Your task to perform on an android device: Open the calendar and show me this week's events? Image 0: 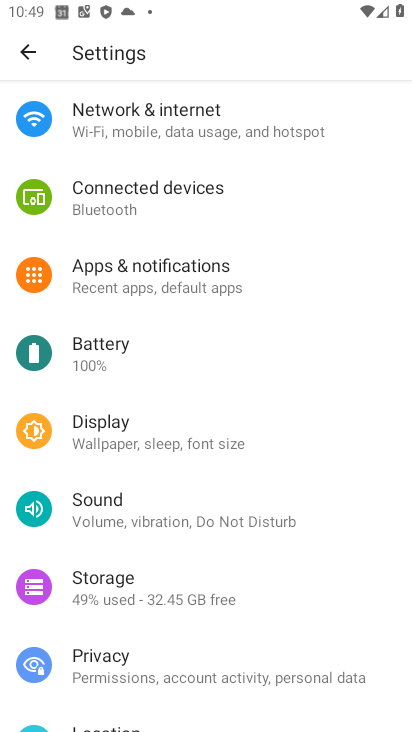
Step 0: press home button
Your task to perform on an android device: Open the calendar and show me this week's events? Image 1: 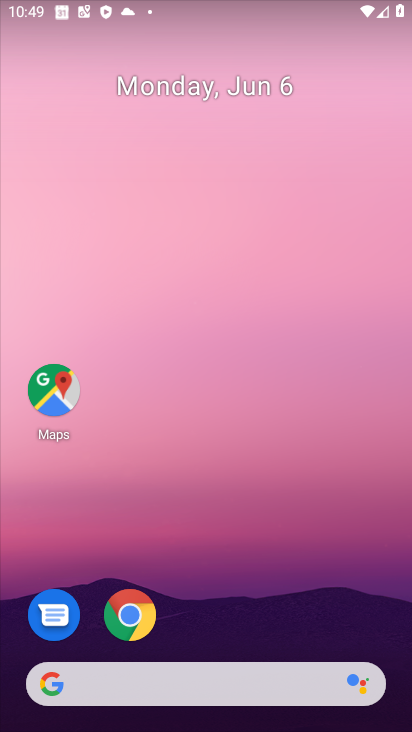
Step 1: drag from (245, 637) to (275, 55)
Your task to perform on an android device: Open the calendar and show me this week's events? Image 2: 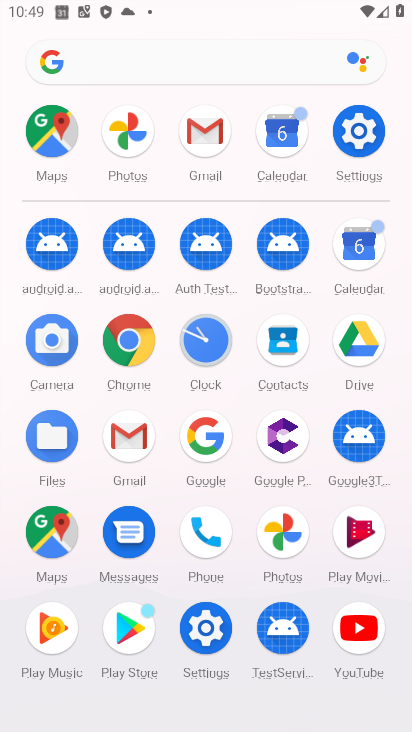
Step 2: click (282, 133)
Your task to perform on an android device: Open the calendar and show me this week's events? Image 3: 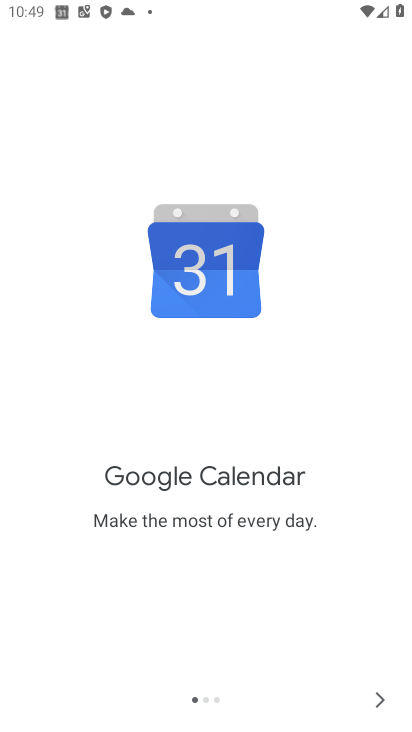
Step 3: click (373, 702)
Your task to perform on an android device: Open the calendar and show me this week's events? Image 4: 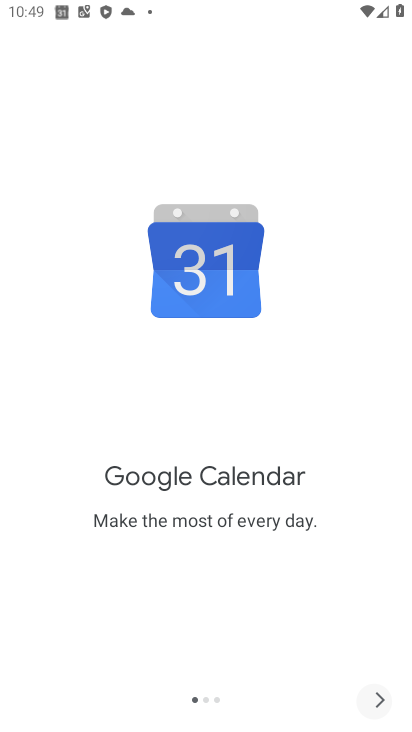
Step 4: click (373, 702)
Your task to perform on an android device: Open the calendar and show me this week's events? Image 5: 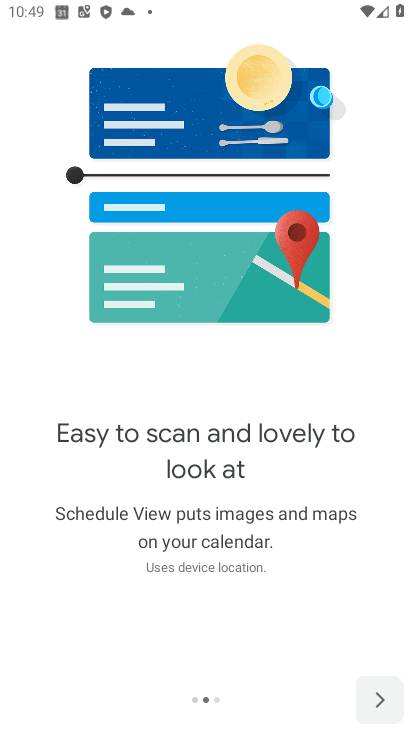
Step 5: click (373, 702)
Your task to perform on an android device: Open the calendar and show me this week's events? Image 6: 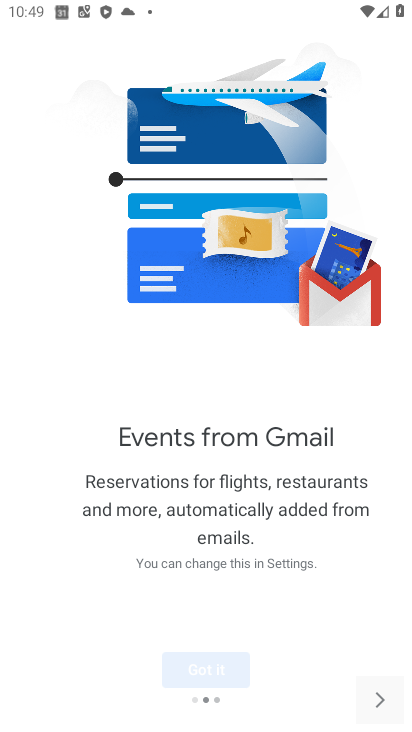
Step 6: click (373, 702)
Your task to perform on an android device: Open the calendar and show me this week's events? Image 7: 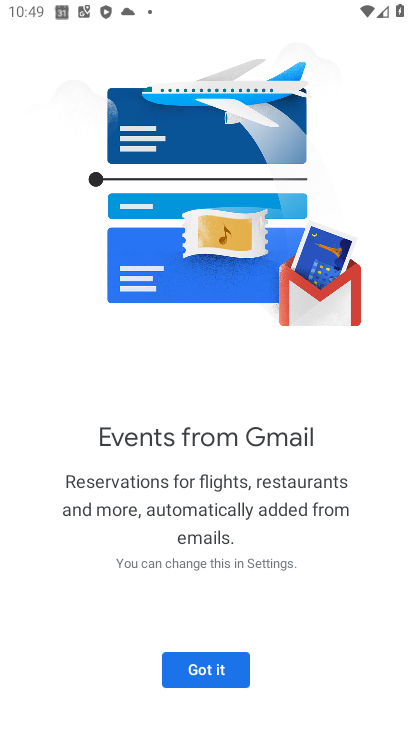
Step 7: click (245, 678)
Your task to perform on an android device: Open the calendar and show me this week's events? Image 8: 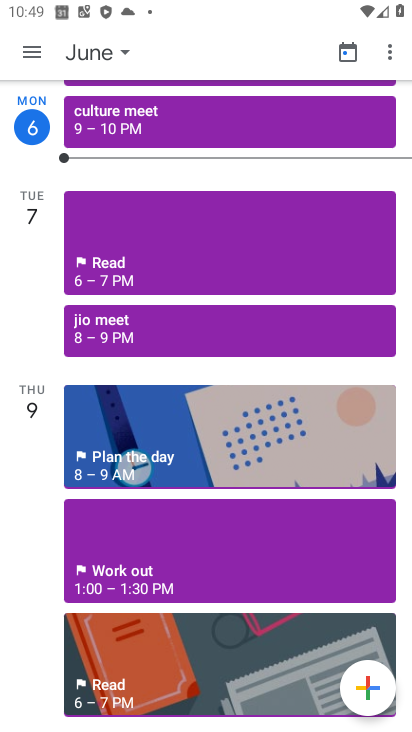
Step 8: task complete